Your task to perform on an android device: Open wifi settings Image 0: 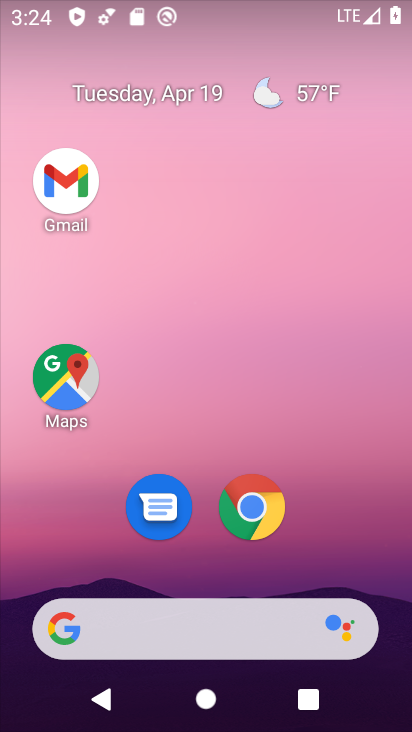
Step 0: drag from (191, 581) to (272, 113)
Your task to perform on an android device: Open wifi settings Image 1: 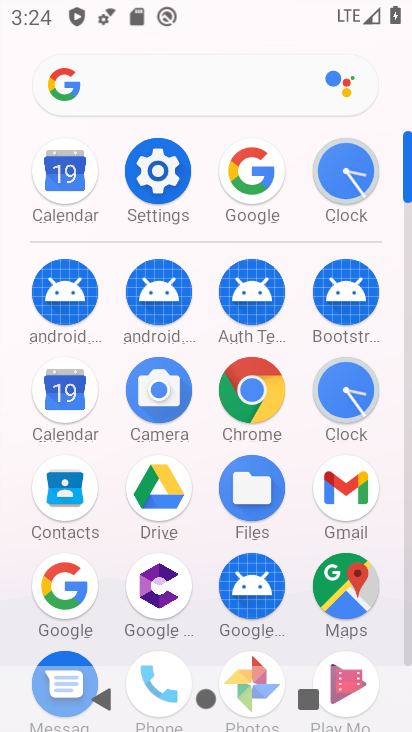
Step 1: click (158, 178)
Your task to perform on an android device: Open wifi settings Image 2: 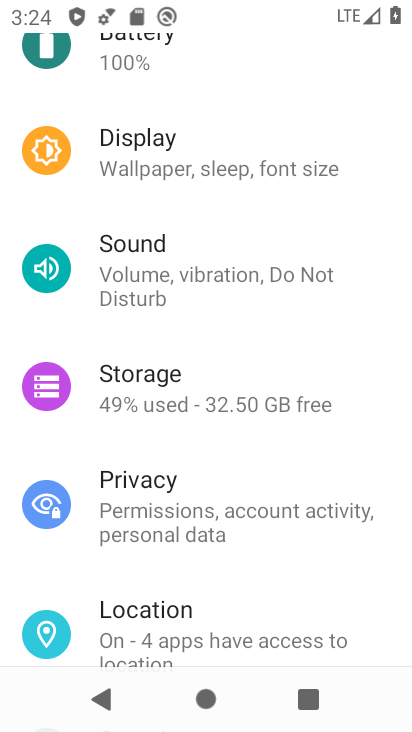
Step 2: drag from (293, 133) to (240, 516)
Your task to perform on an android device: Open wifi settings Image 3: 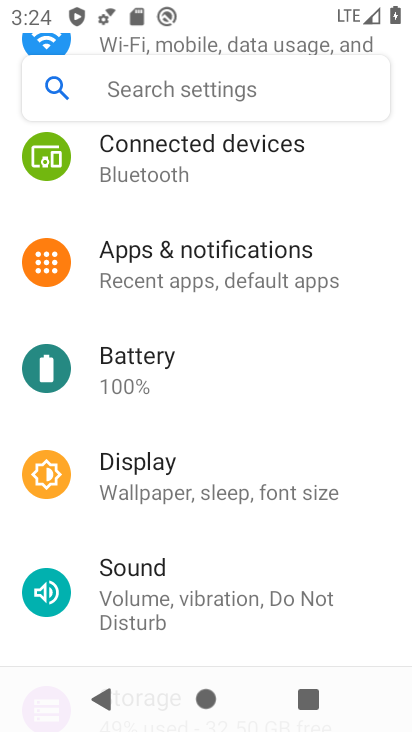
Step 3: drag from (324, 193) to (243, 490)
Your task to perform on an android device: Open wifi settings Image 4: 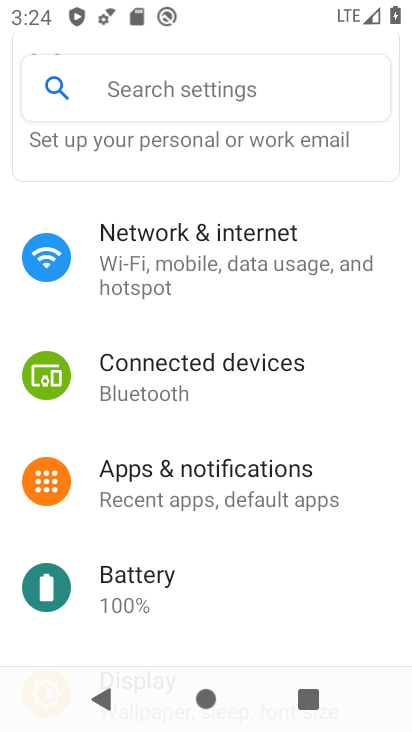
Step 4: click (231, 245)
Your task to perform on an android device: Open wifi settings Image 5: 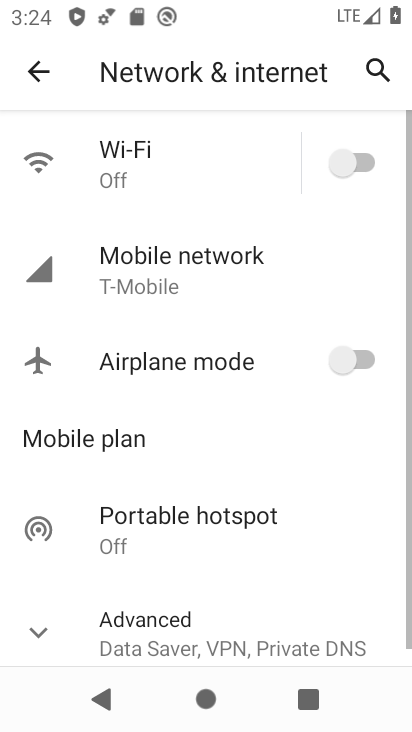
Step 5: click (180, 157)
Your task to perform on an android device: Open wifi settings Image 6: 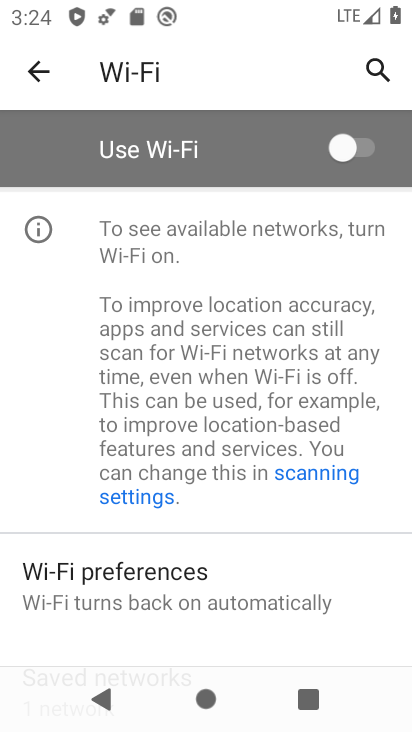
Step 6: click (359, 157)
Your task to perform on an android device: Open wifi settings Image 7: 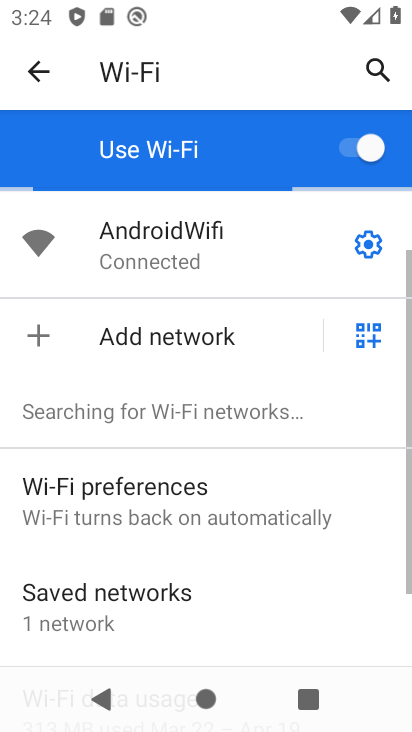
Step 7: click (361, 252)
Your task to perform on an android device: Open wifi settings Image 8: 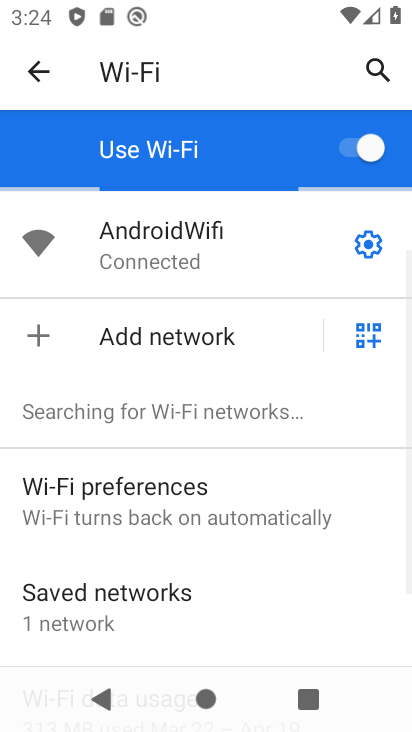
Step 8: click (360, 243)
Your task to perform on an android device: Open wifi settings Image 9: 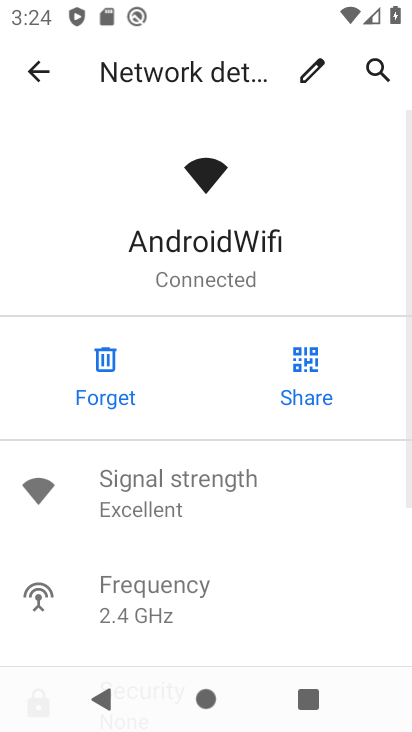
Step 9: task complete